Your task to perform on an android device: Search for seafood restaurants on Google Maps Image 0: 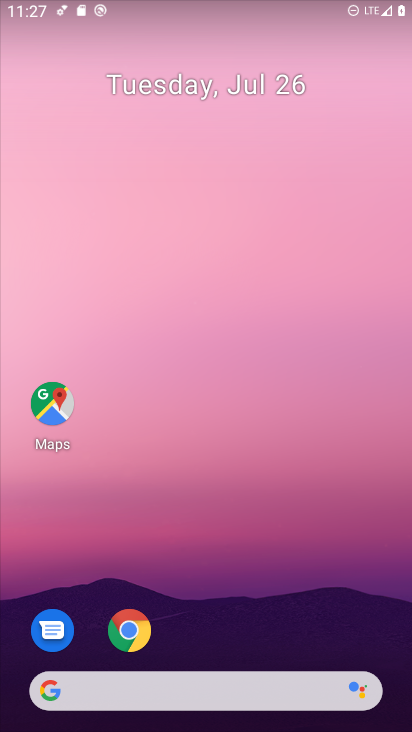
Step 0: click (52, 402)
Your task to perform on an android device: Search for seafood restaurants on Google Maps Image 1: 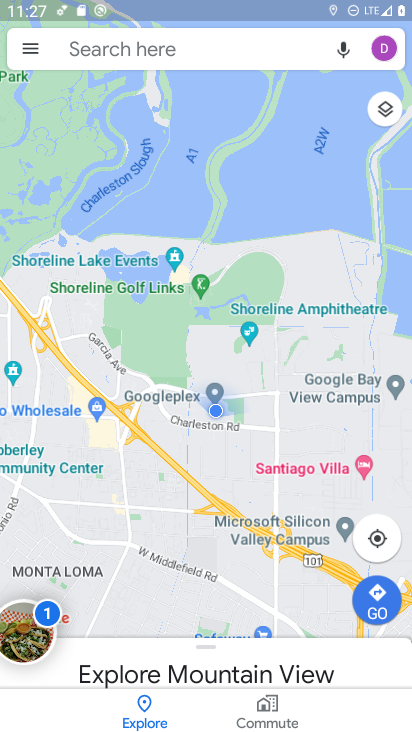
Step 1: click (119, 47)
Your task to perform on an android device: Search for seafood restaurants on Google Maps Image 2: 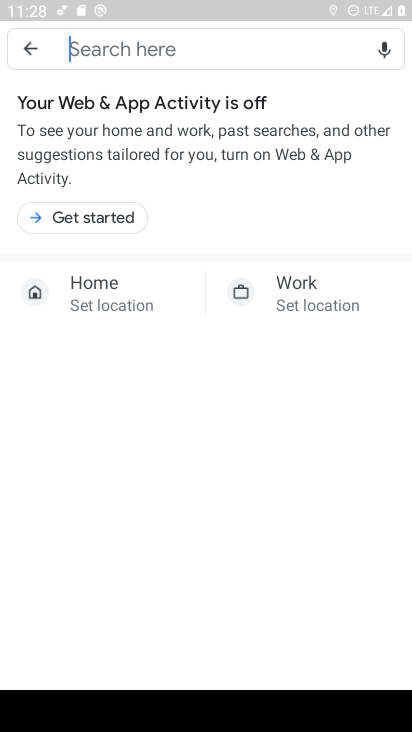
Step 2: type "seafood restaurants"
Your task to perform on an android device: Search for seafood restaurants on Google Maps Image 3: 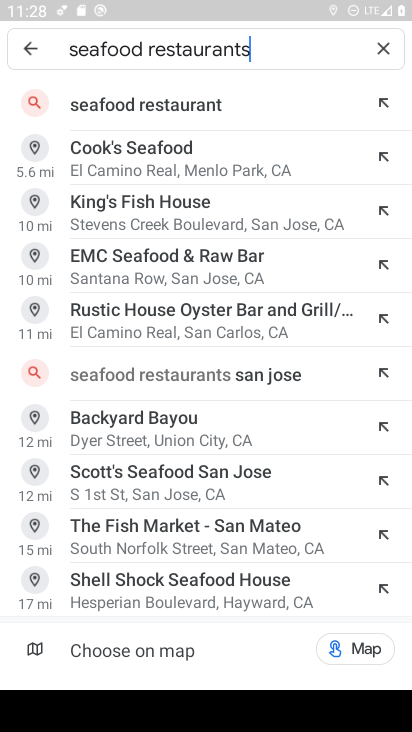
Step 3: click (166, 111)
Your task to perform on an android device: Search for seafood restaurants on Google Maps Image 4: 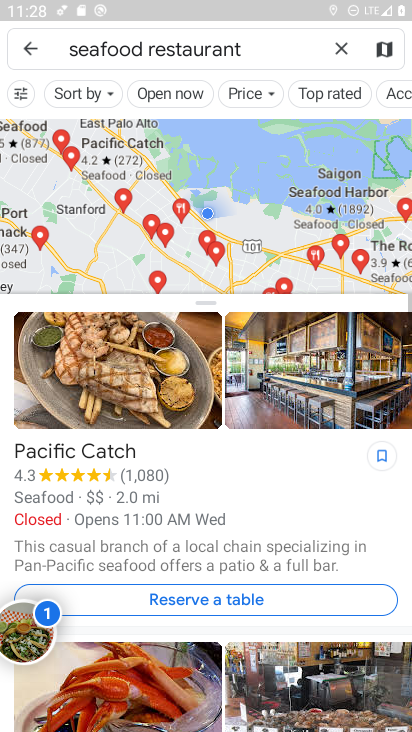
Step 4: task complete